Your task to perform on an android device: Open CNN.com Image 0: 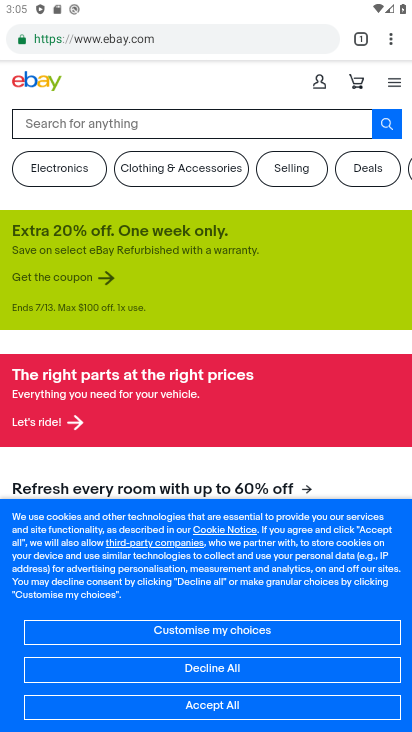
Step 0: press home button
Your task to perform on an android device: Open CNN.com Image 1: 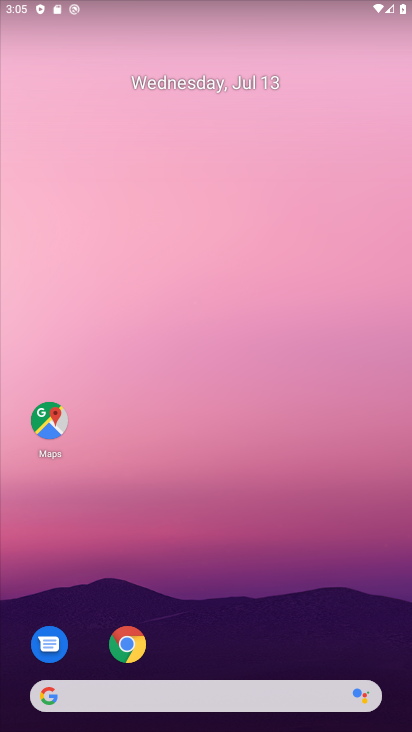
Step 1: click (127, 645)
Your task to perform on an android device: Open CNN.com Image 2: 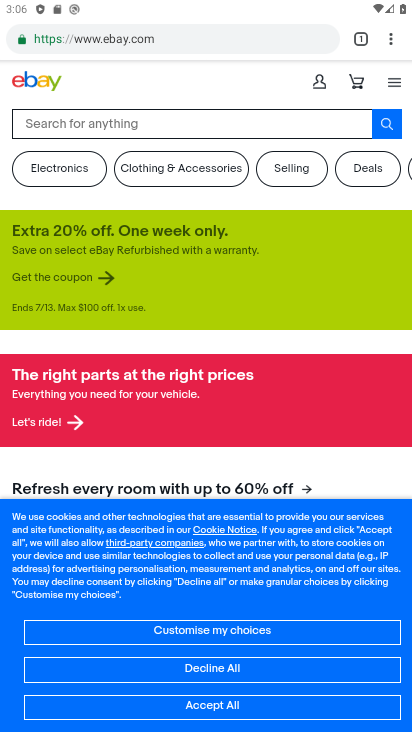
Step 2: click (259, 46)
Your task to perform on an android device: Open CNN.com Image 3: 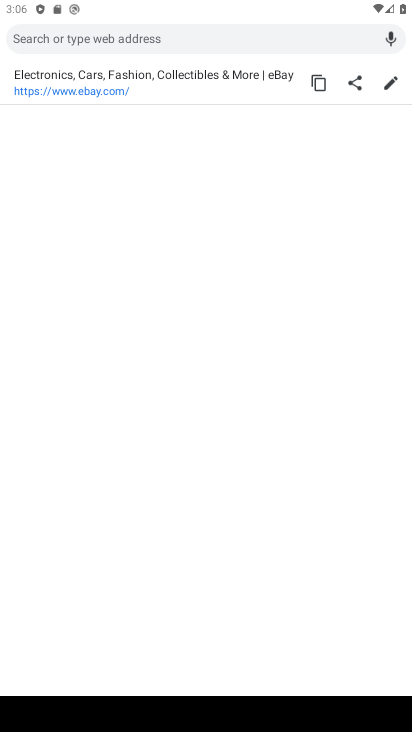
Step 3: type "CNN.com"
Your task to perform on an android device: Open CNN.com Image 4: 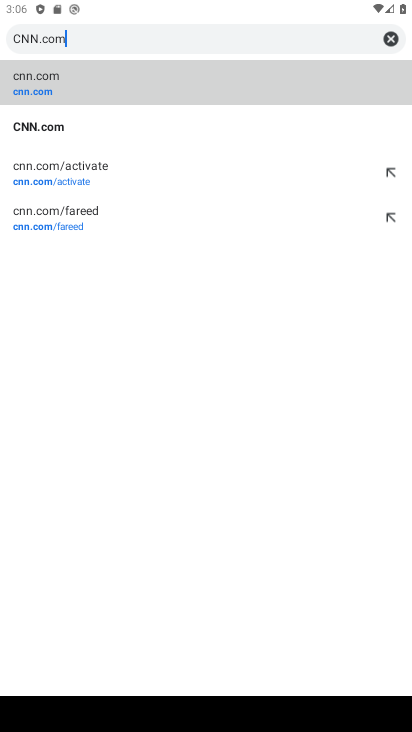
Step 4: click (64, 127)
Your task to perform on an android device: Open CNN.com Image 5: 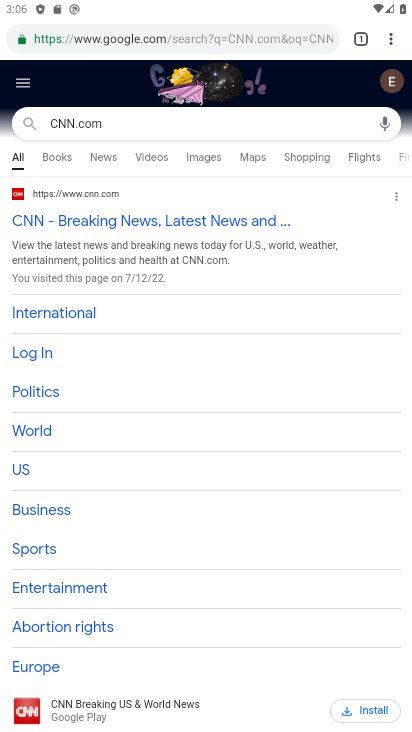
Step 5: click (181, 224)
Your task to perform on an android device: Open CNN.com Image 6: 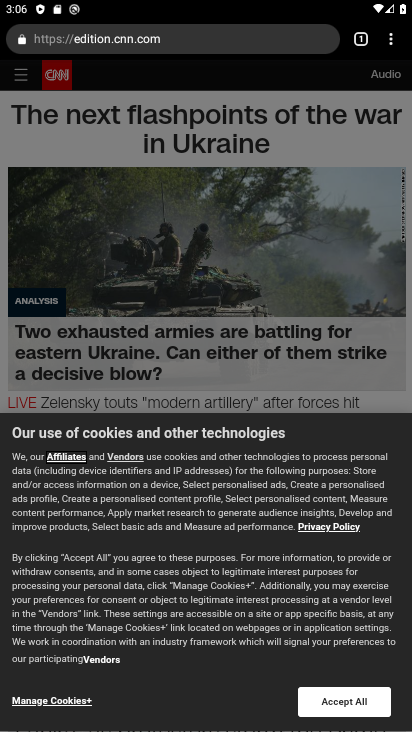
Step 6: click (367, 700)
Your task to perform on an android device: Open CNN.com Image 7: 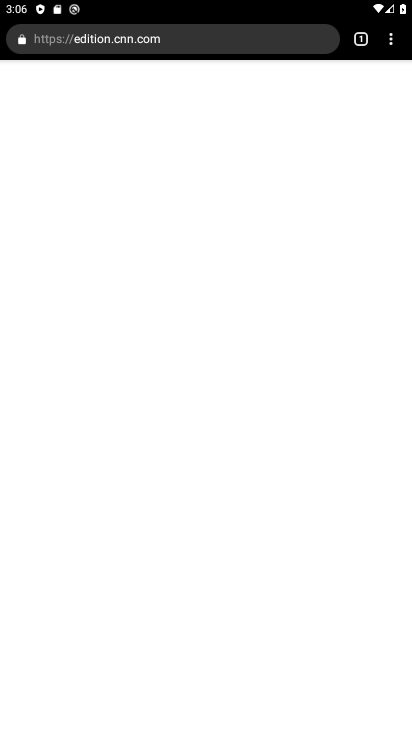
Step 7: task complete